Your task to perform on an android device: Open accessibility settings Image 0: 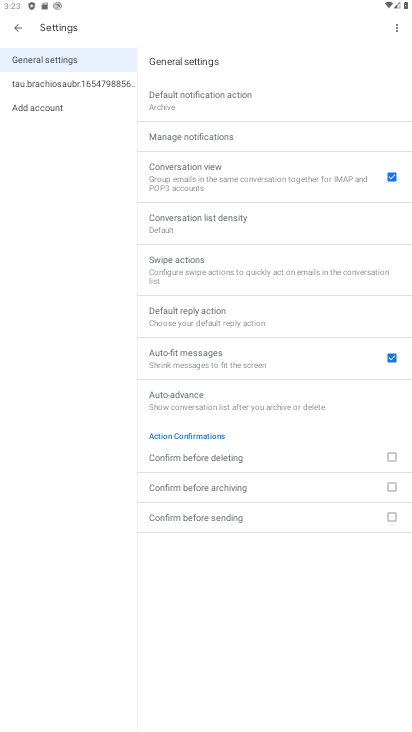
Step 0: press home button
Your task to perform on an android device: Open accessibility settings Image 1: 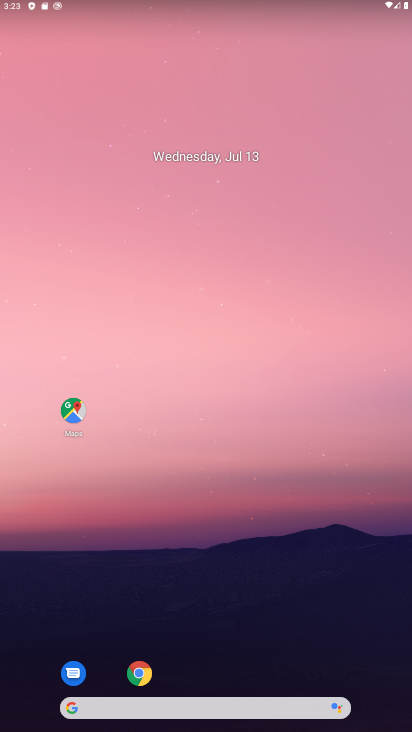
Step 1: drag from (194, 705) to (295, 125)
Your task to perform on an android device: Open accessibility settings Image 2: 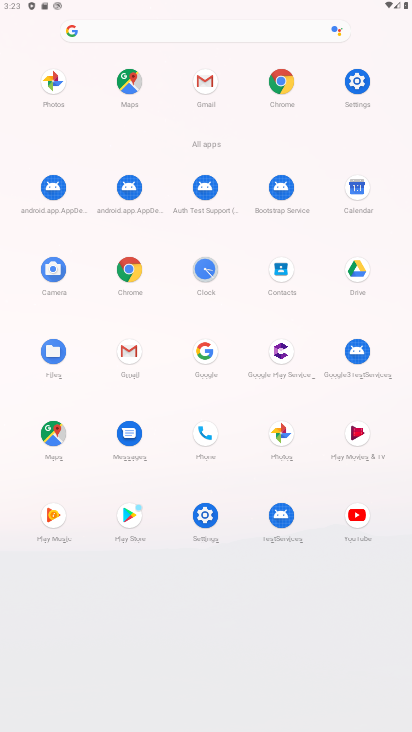
Step 2: click (357, 79)
Your task to perform on an android device: Open accessibility settings Image 3: 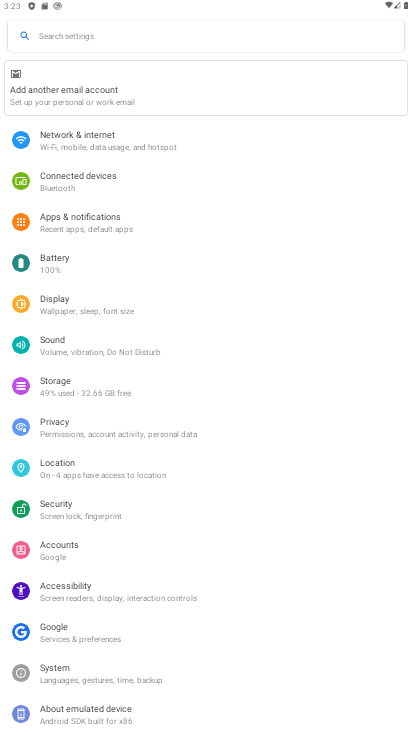
Step 3: click (106, 598)
Your task to perform on an android device: Open accessibility settings Image 4: 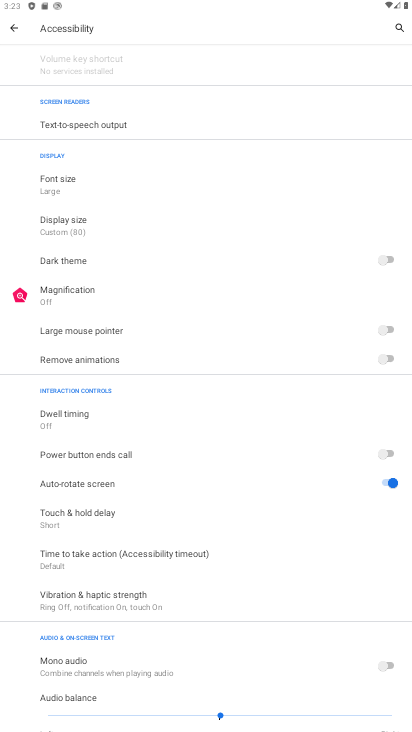
Step 4: task complete